Your task to perform on an android device: turn off notifications settings in the gmail app Image 0: 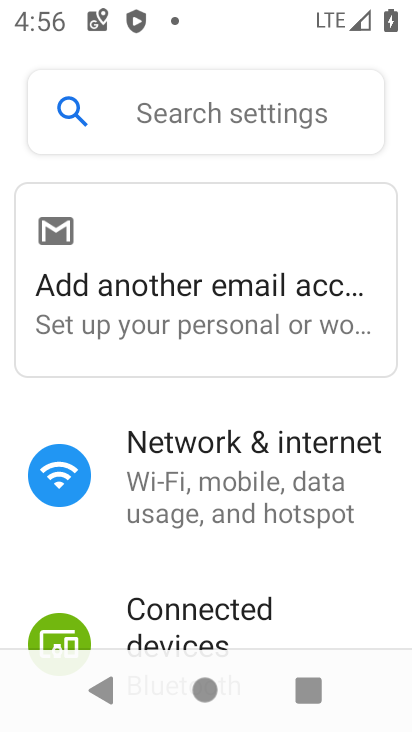
Step 0: drag from (265, 569) to (316, 127)
Your task to perform on an android device: turn off notifications settings in the gmail app Image 1: 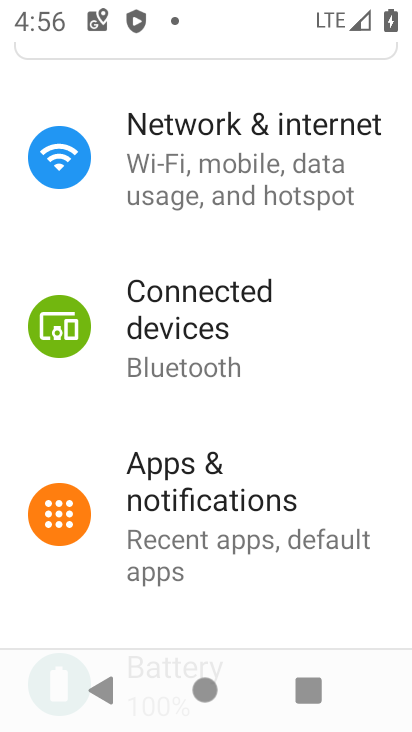
Step 1: click (218, 492)
Your task to perform on an android device: turn off notifications settings in the gmail app Image 2: 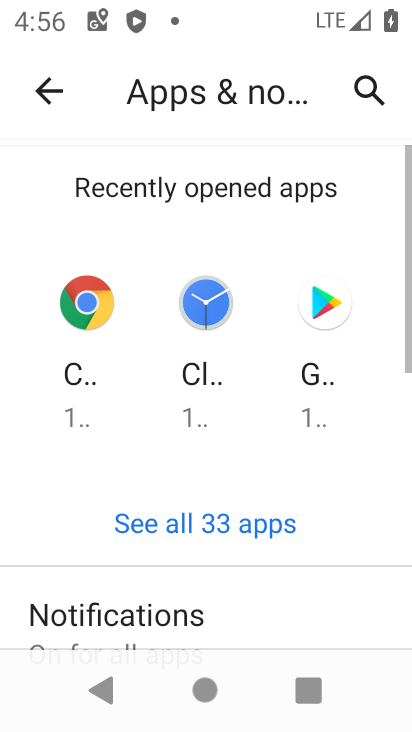
Step 2: drag from (285, 608) to (331, 248)
Your task to perform on an android device: turn off notifications settings in the gmail app Image 3: 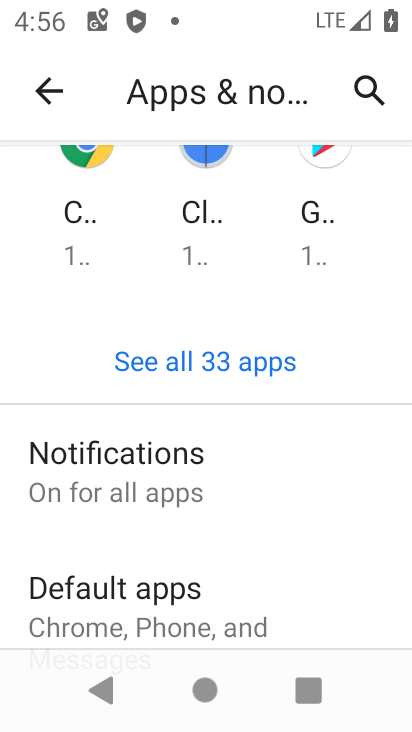
Step 3: click (144, 455)
Your task to perform on an android device: turn off notifications settings in the gmail app Image 4: 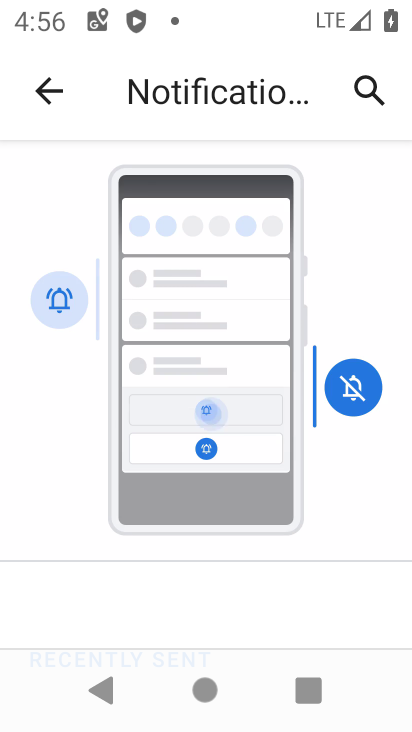
Step 4: drag from (251, 615) to (267, 213)
Your task to perform on an android device: turn off notifications settings in the gmail app Image 5: 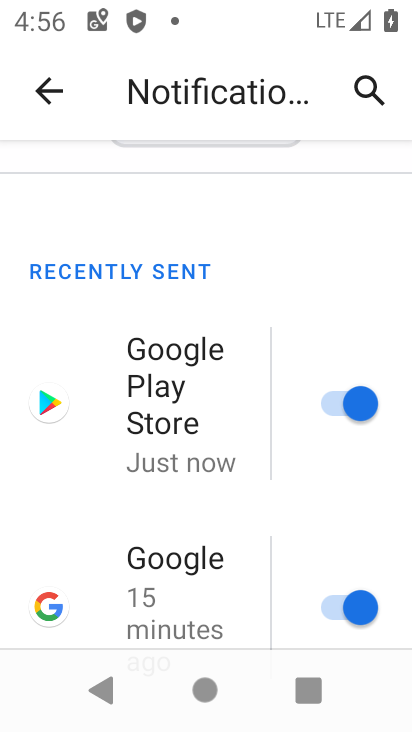
Step 5: drag from (141, 563) to (228, 119)
Your task to perform on an android device: turn off notifications settings in the gmail app Image 6: 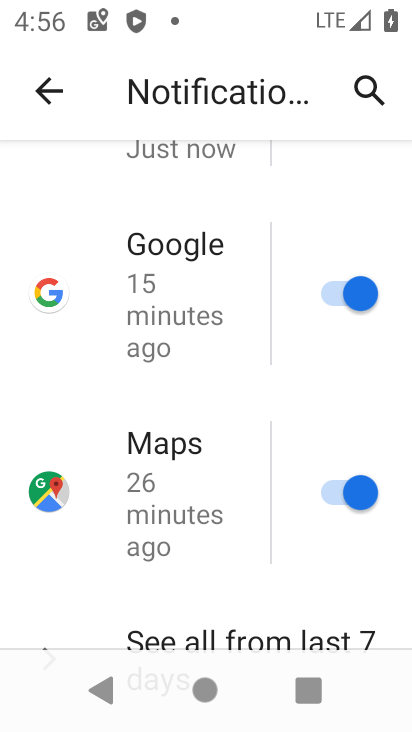
Step 6: drag from (190, 627) to (205, 214)
Your task to perform on an android device: turn off notifications settings in the gmail app Image 7: 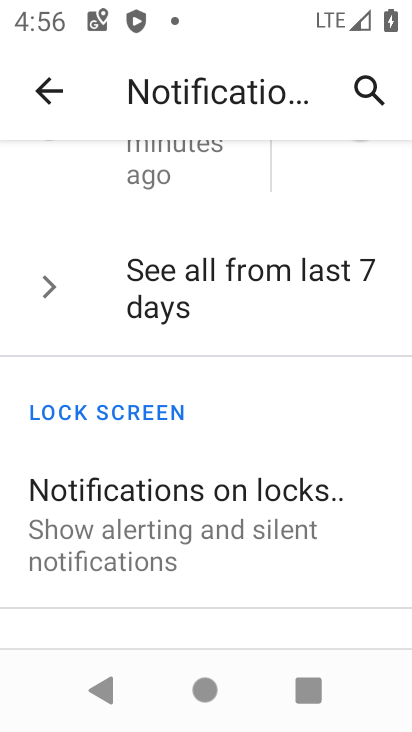
Step 7: drag from (219, 539) to (258, 196)
Your task to perform on an android device: turn off notifications settings in the gmail app Image 8: 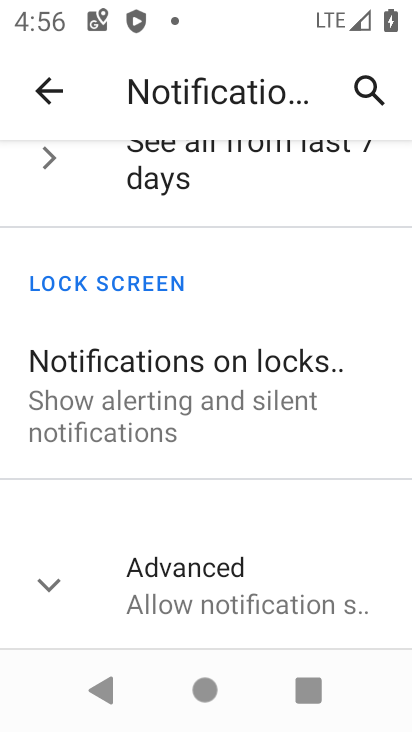
Step 8: click (209, 586)
Your task to perform on an android device: turn off notifications settings in the gmail app Image 9: 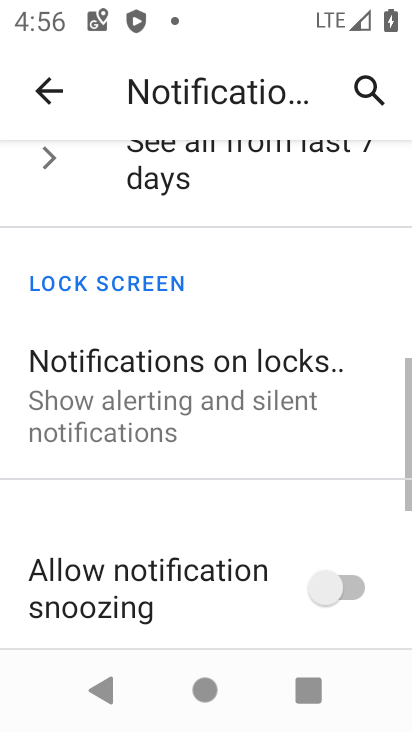
Step 9: task complete